Your task to perform on an android device: Search for macbook pro 15 inch on costco, select the first entry, add it to the cart, then select checkout. Image 0: 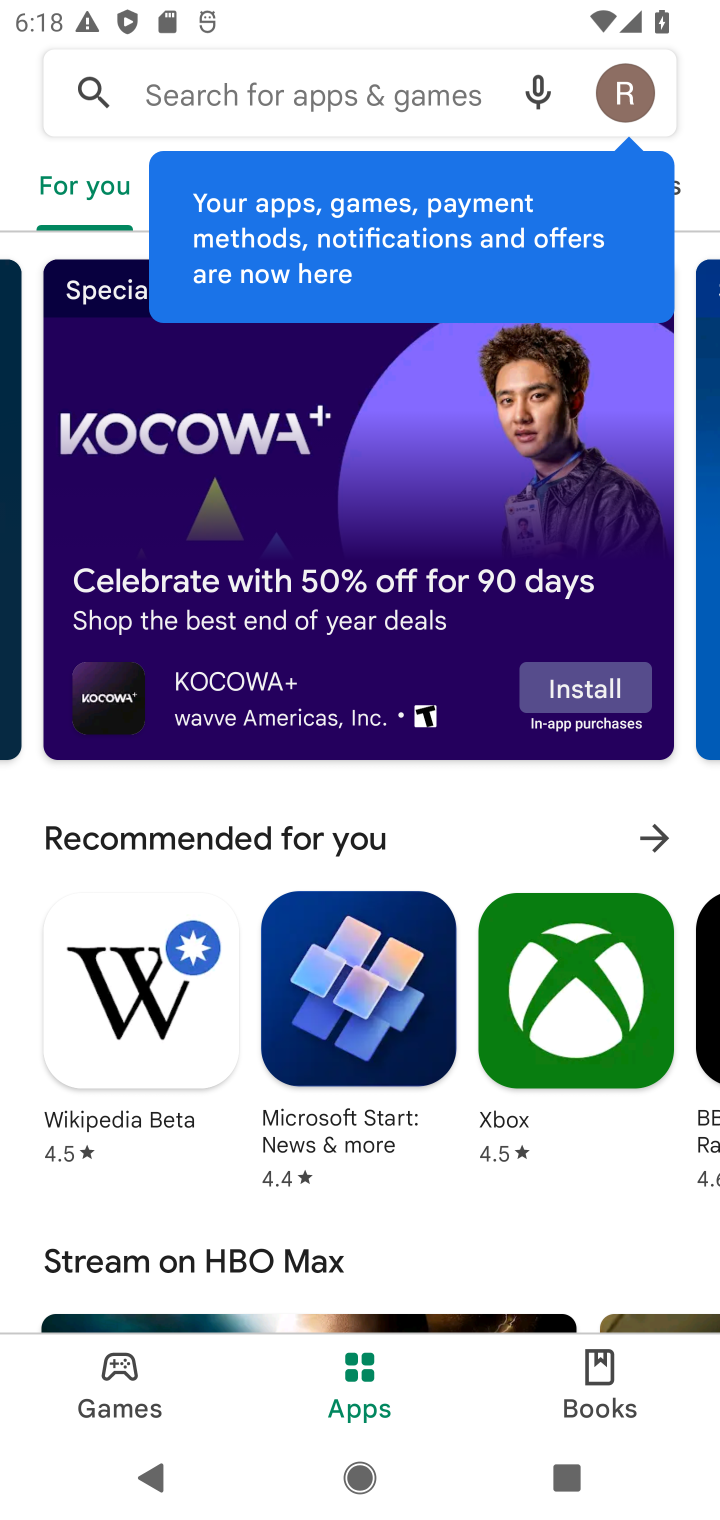
Step 0: press home button
Your task to perform on an android device: Search for macbook pro 15 inch on costco, select the first entry, add it to the cart, then select checkout. Image 1: 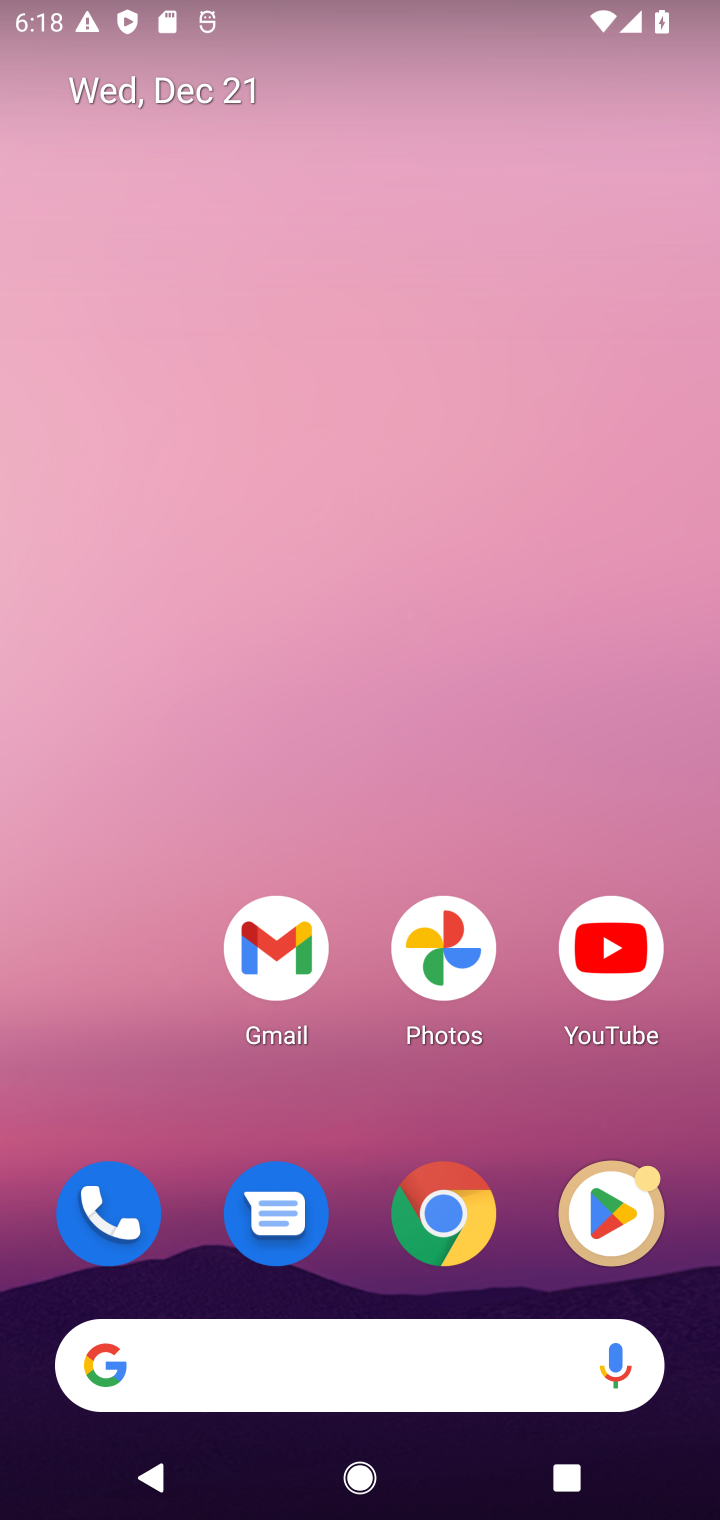
Step 1: click (447, 1233)
Your task to perform on an android device: Search for macbook pro 15 inch on costco, select the first entry, add it to the cart, then select checkout. Image 2: 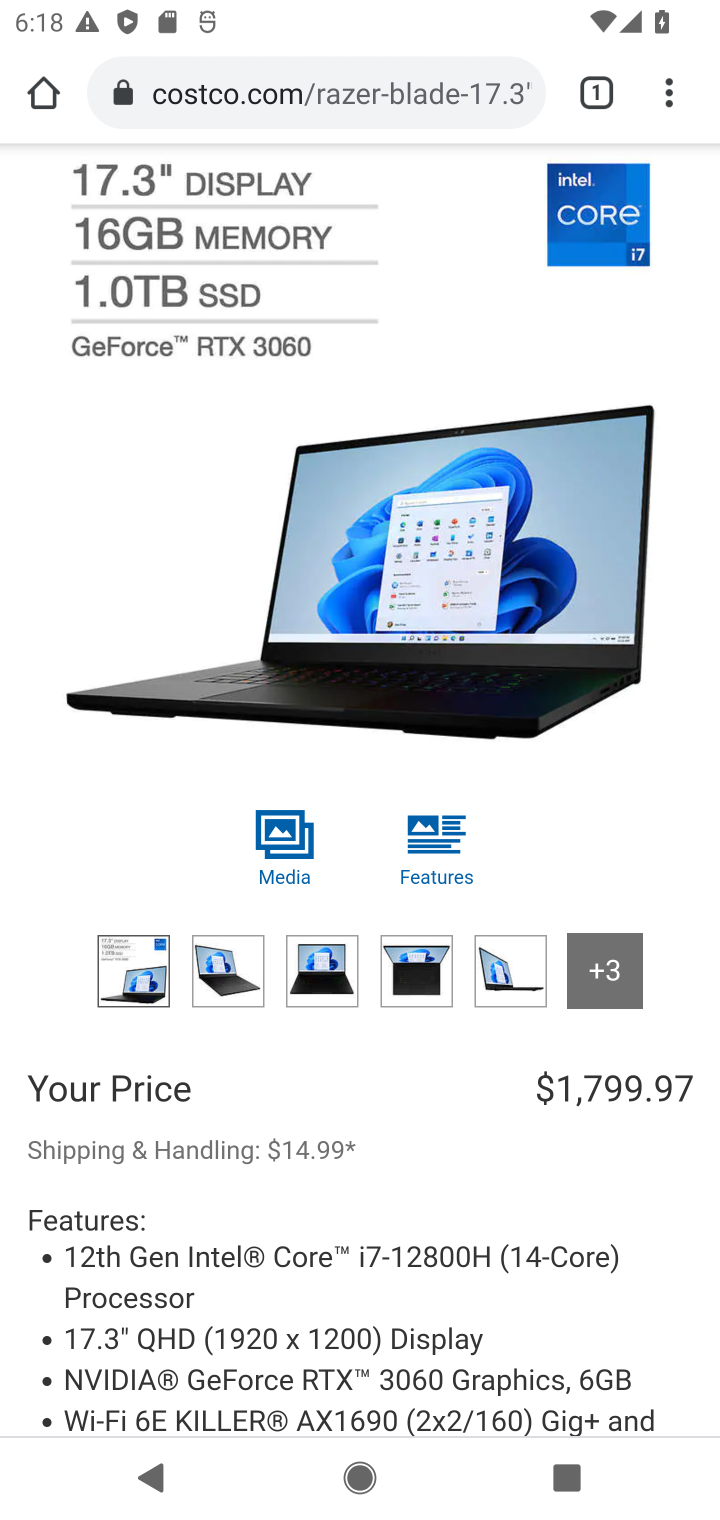
Step 2: drag from (285, 525) to (353, 929)
Your task to perform on an android device: Search for macbook pro 15 inch on costco, select the first entry, add it to the cart, then select checkout. Image 3: 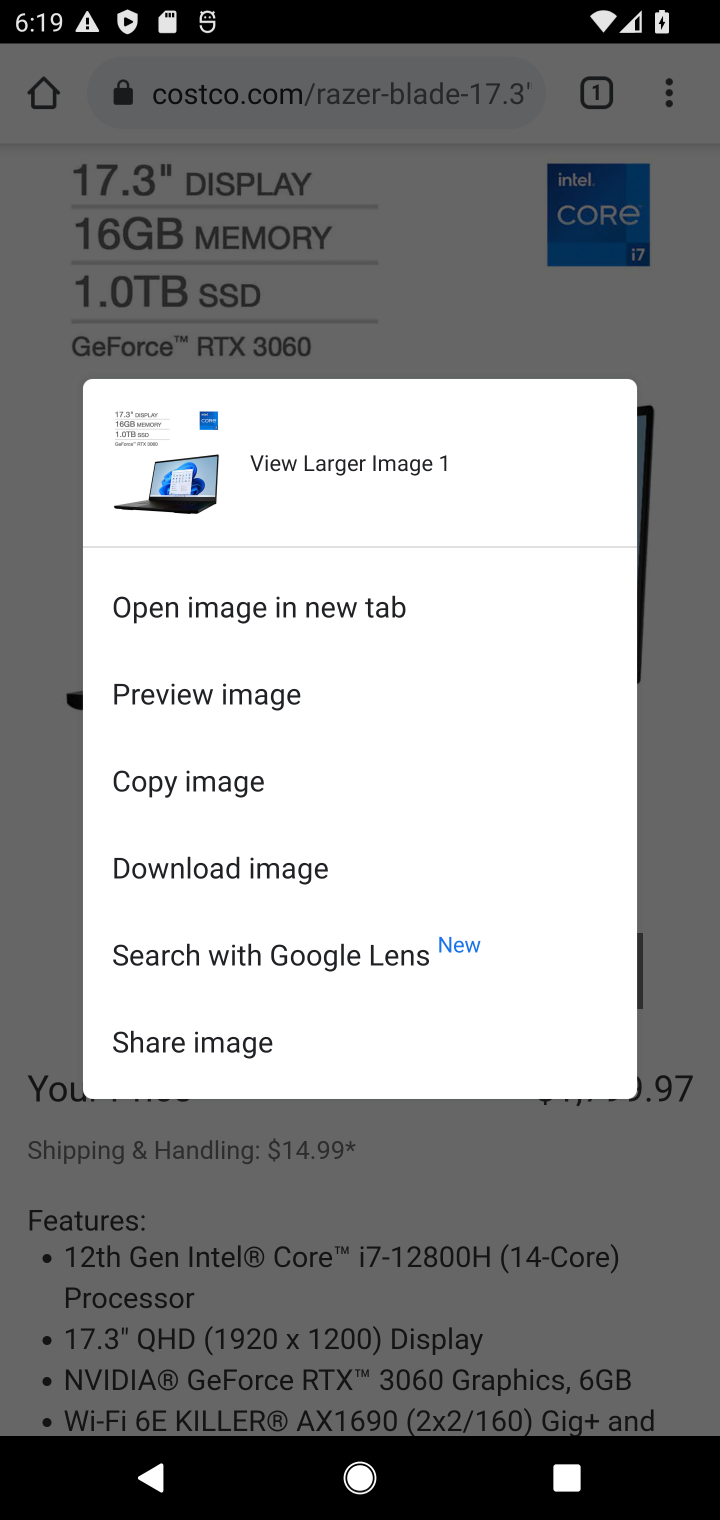
Step 3: click (366, 1224)
Your task to perform on an android device: Search for macbook pro 15 inch on costco, select the first entry, add it to the cart, then select checkout. Image 4: 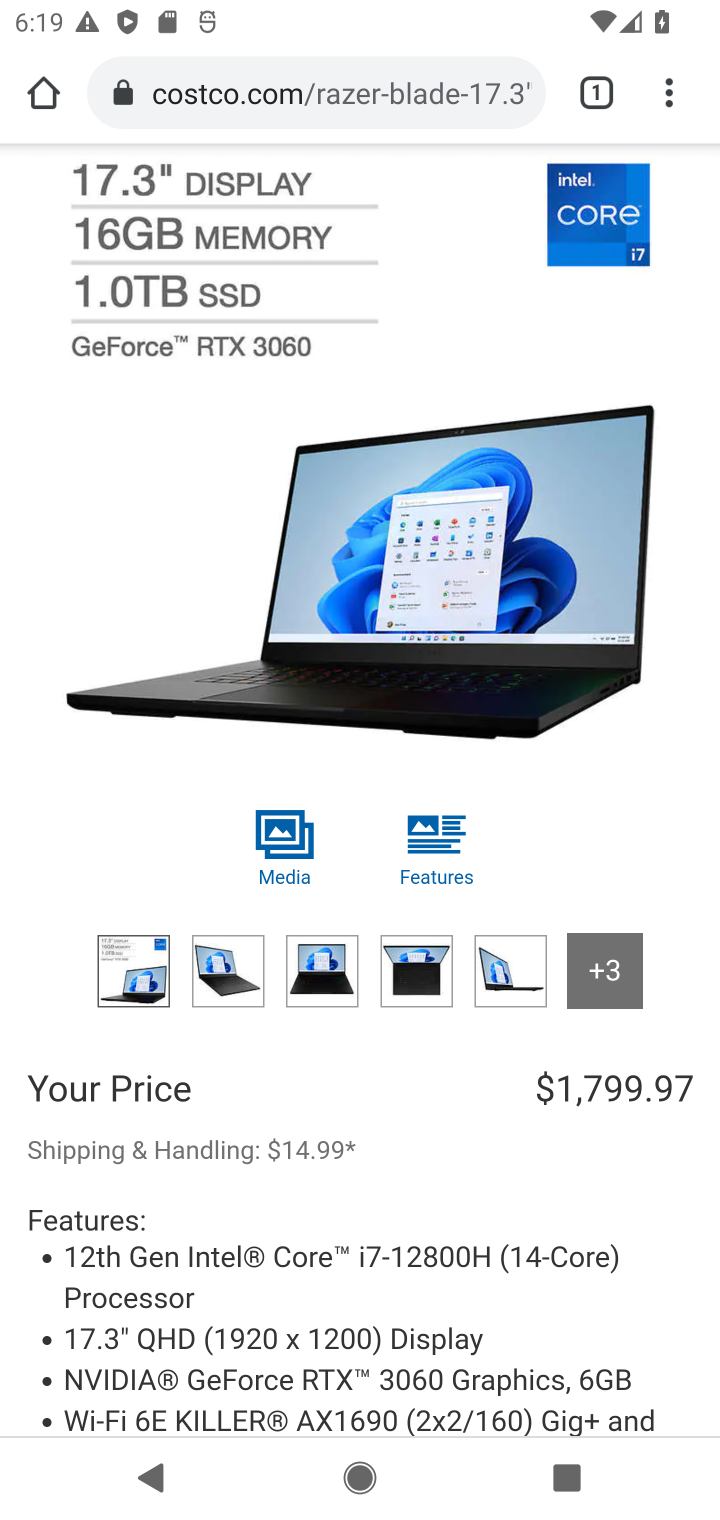
Step 4: task complete